Your task to perform on an android device: open chrome and create a bookmark for the current page Image 0: 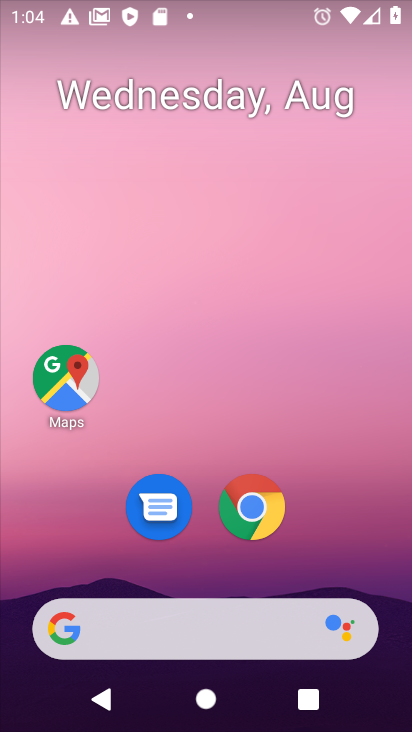
Step 0: click (241, 528)
Your task to perform on an android device: open chrome and create a bookmark for the current page Image 1: 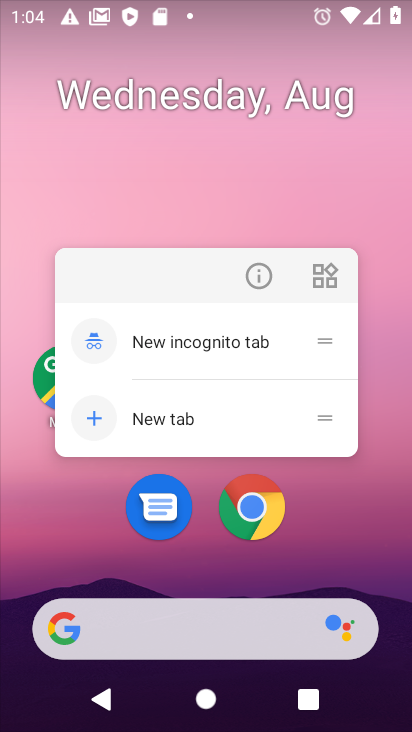
Step 1: click (355, 506)
Your task to perform on an android device: open chrome and create a bookmark for the current page Image 2: 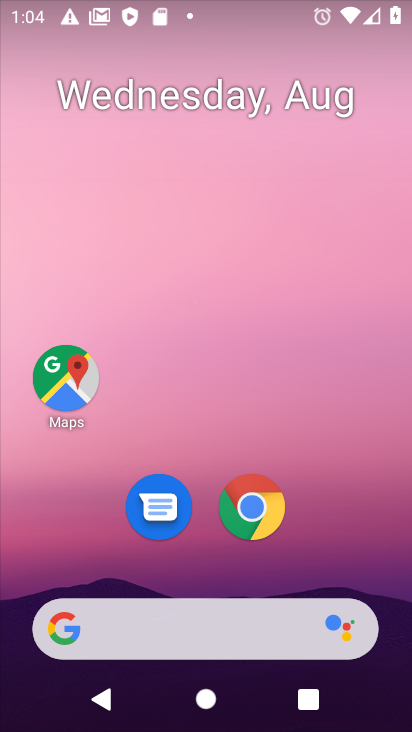
Step 2: click (235, 523)
Your task to perform on an android device: open chrome and create a bookmark for the current page Image 3: 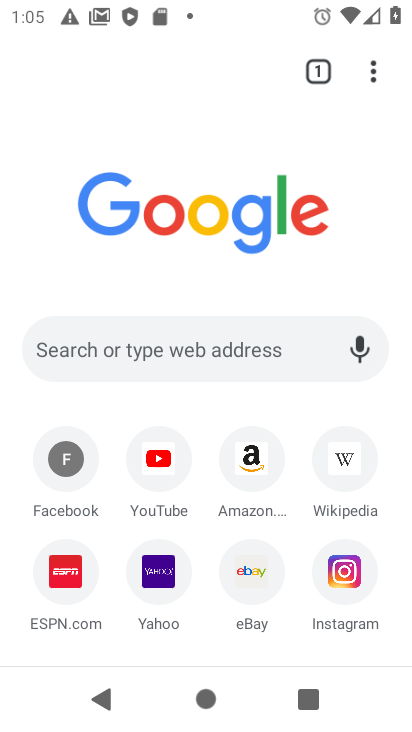
Step 3: click (370, 73)
Your task to perform on an android device: open chrome and create a bookmark for the current page Image 4: 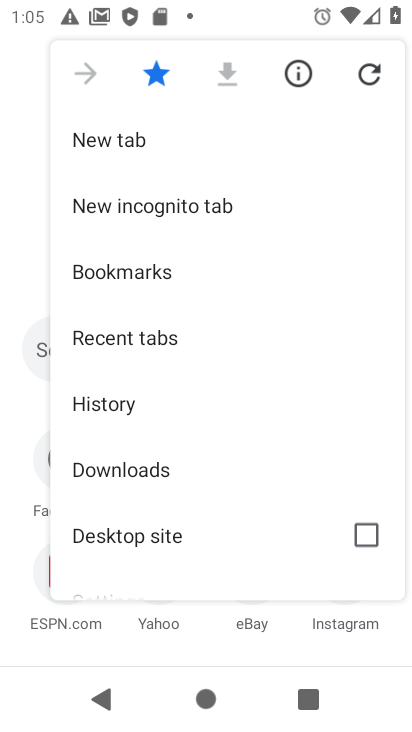
Step 4: task complete